Your task to perform on an android device: change notification settings in the gmail app Image 0: 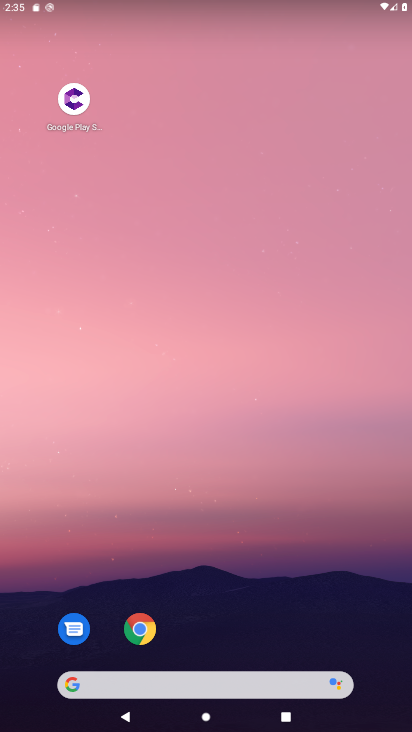
Step 0: drag from (293, 602) to (231, 396)
Your task to perform on an android device: change notification settings in the gmail app Image 1: 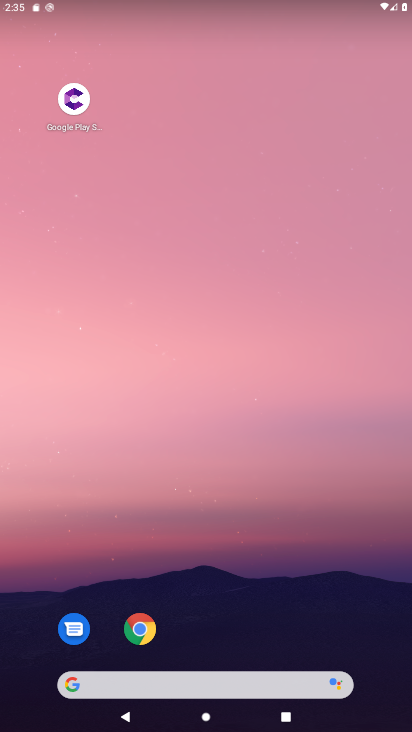
Step 1: drag from (284, 586) to (178, 51)
Your task to perform on an android device: change notification settings in the gmail app Image 2: 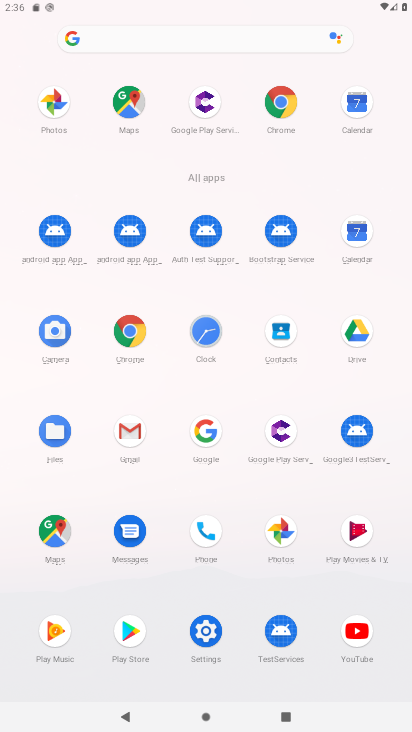
Step 2: click (124, 430)
Your task to perform on an android device: change notification settings in the gmail app Image 3: 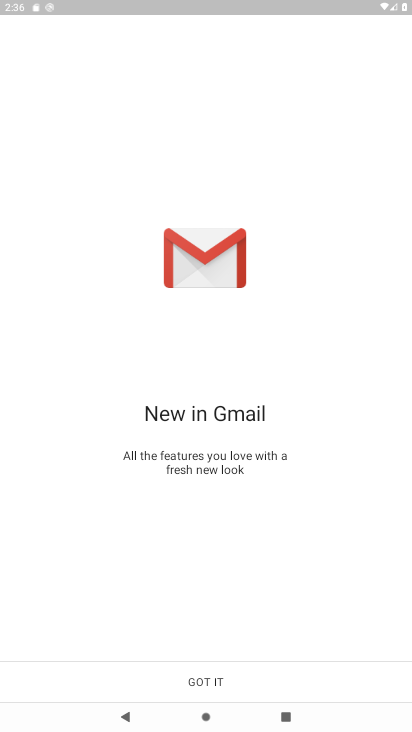
Step 3: click (186, 677)
Your task to perform on an android device: change notification settings in the gmail app Image 4: 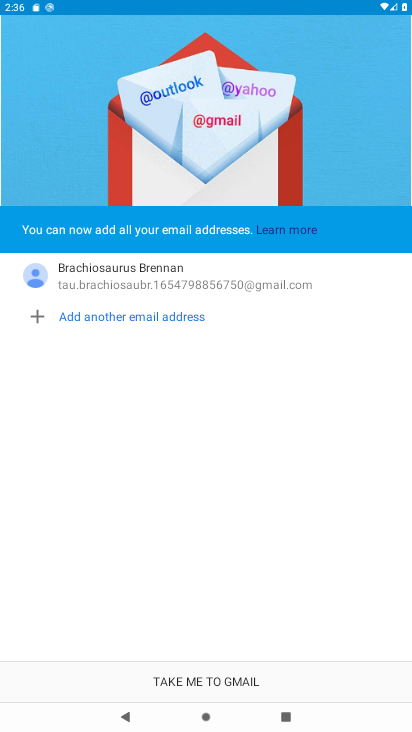
Step 4: click (186, 677)
Your task to perform on an android device: change notification settings in the gmail app Image 5: 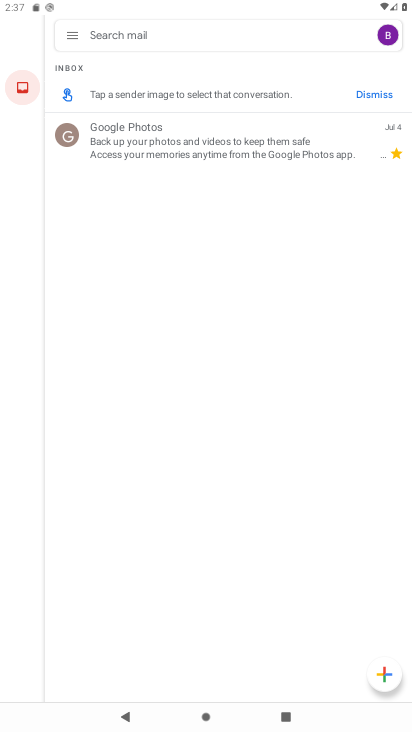
Step 5: click (63, 38)
Your task to perform on an android device: change notification settings in the gmail app Image 6: 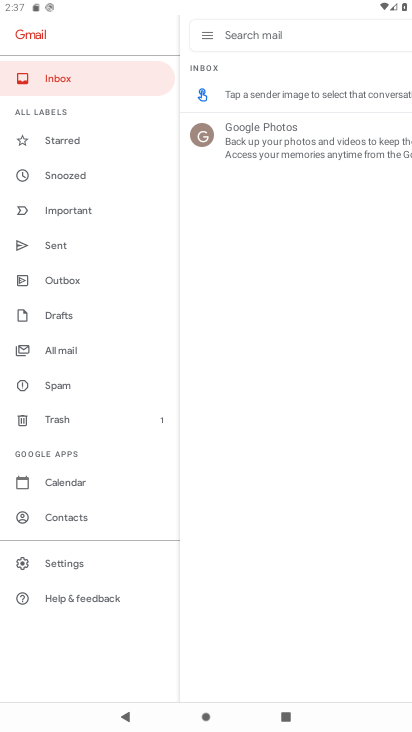
Step 6: click (81, 551)
Your task to perform on an android device: change notification settings in the gmail app Image 7: 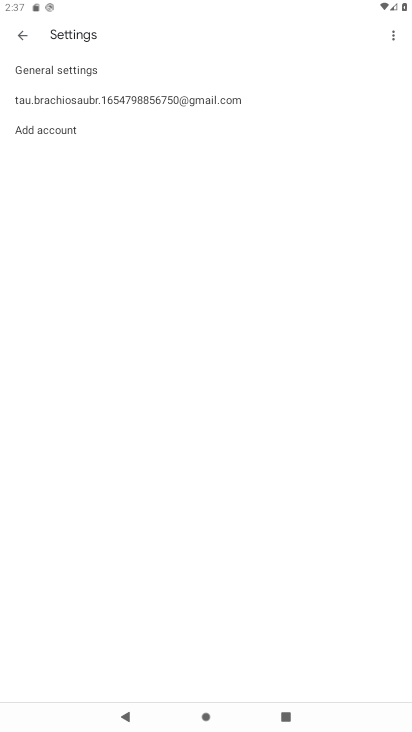
Step 7: click (100, 71)
Your task to perform on an android device: change notification settings in the gmail app Image 8: 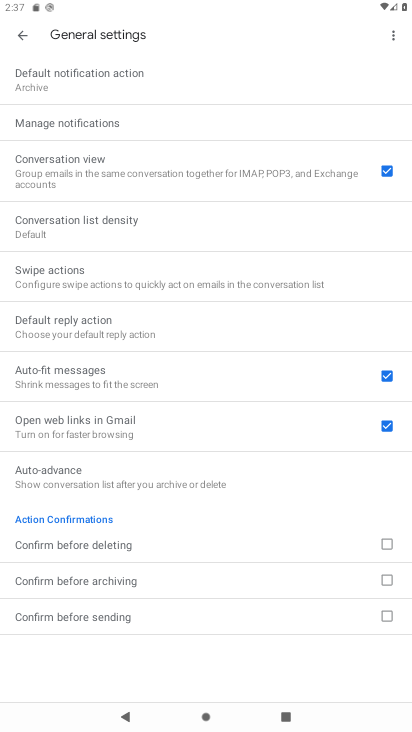
Step 8: click (65, 132)
Your task to perform on an android device: change notification settings in the gmail app Image 9: 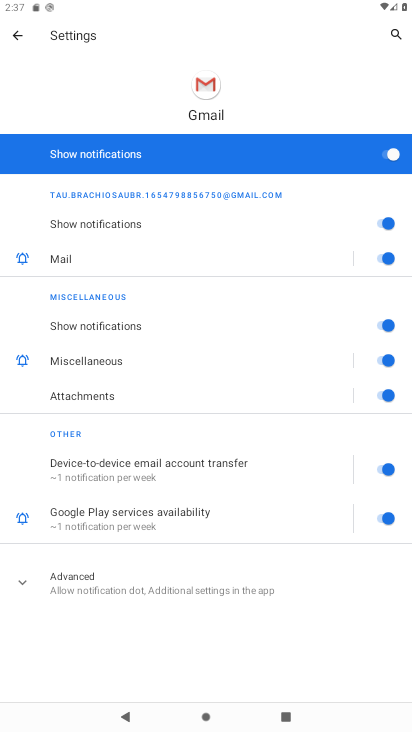
Step 9: click (135, 322)
Your task to perform on an android device: change notification settings in the gmail app Image 10: 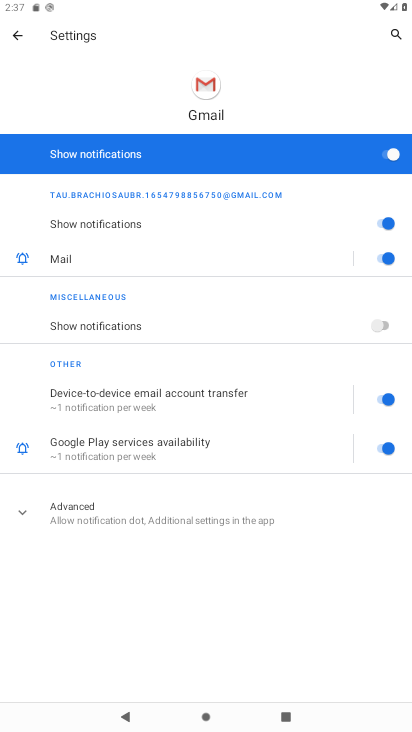
Step 10: click (388, 224)
Your task to perform on an android device: change notification settings in the gmail app Image 11: 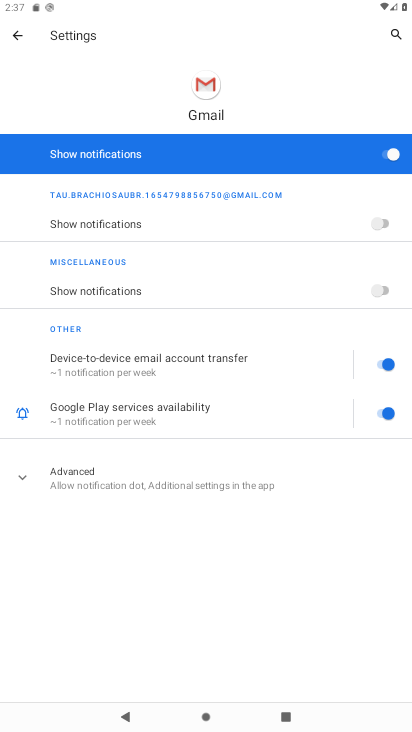
Step 11: task complete